Your task to perform on an android device: uninstall "Google Find My Device" Image 0: 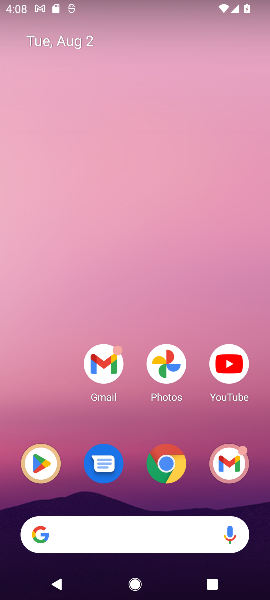
Step 0: click (37, 463)
Your task to perform on an android device: uninstall "Google Find My Device" Image 1: 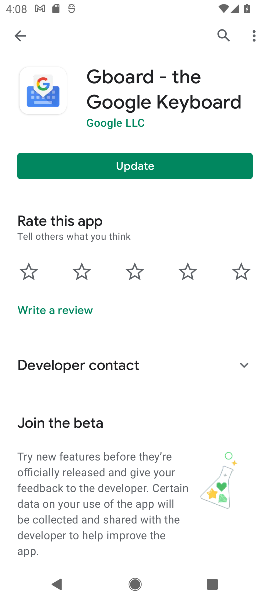
Step 1: click (224, 31)
Your task to perform on an android device: uninstall "Google Find My Device" Image 2: 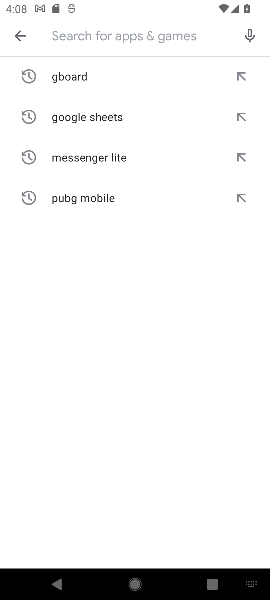
Step 2: type "Google Find My Device"
Your task to perform on an android device: uninstall "Google Find My Device" Image 3: 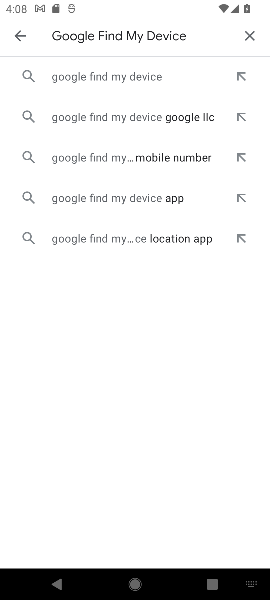
Step 3: click (125, 77)
Your task to perform on an android device: uninstall "Google Find My Device" Image 4: 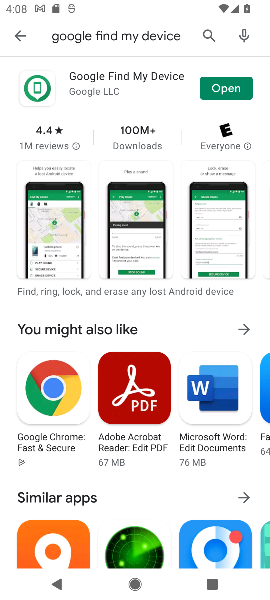
Step 4: click (90, 80)
Your task to perform on an android device: uninstall "Google Find My Device" Image 5: 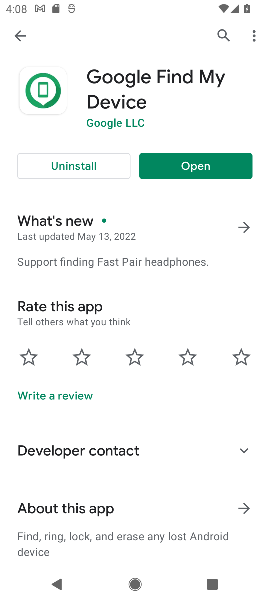
Step 5: click (101, 162)
Your task to perform on an android device: uninstall "Google Find My Device" Image 6: 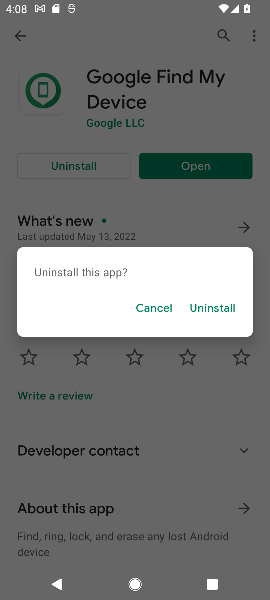
Step 6: click (210, 309)
Your task to perform on an android device: uninstall "Google Find My Device" Image 7: 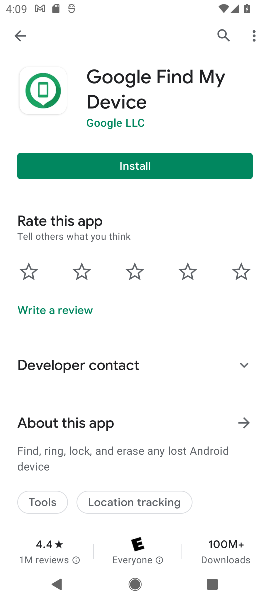
Step 7: task complete